Your task to perform on an android device: open app "Indeed Job Search" Image 0: 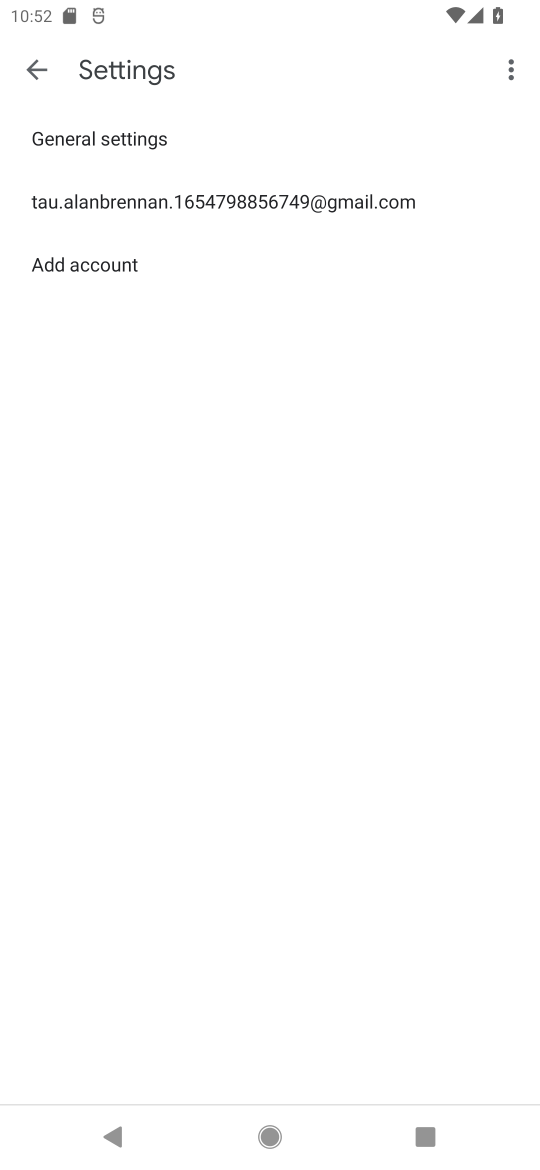
Step 0: press back button
Your task to perform on an android device: open app "Indeed Job Search" Image 1: 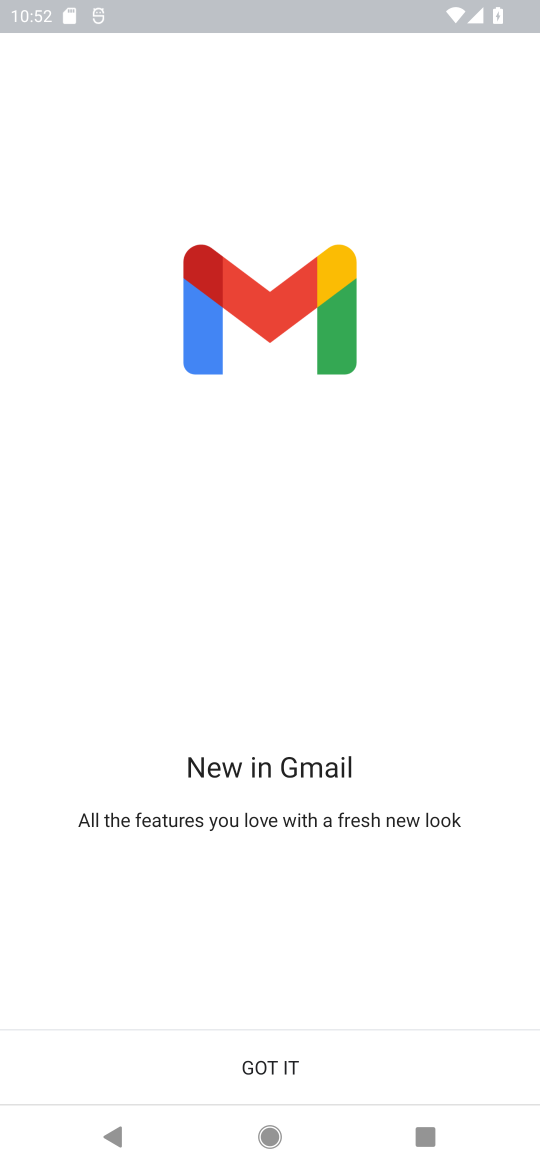
Step 1: press home button
Your task to perform on an android device: open app "Indeed Job Search" Image 2: 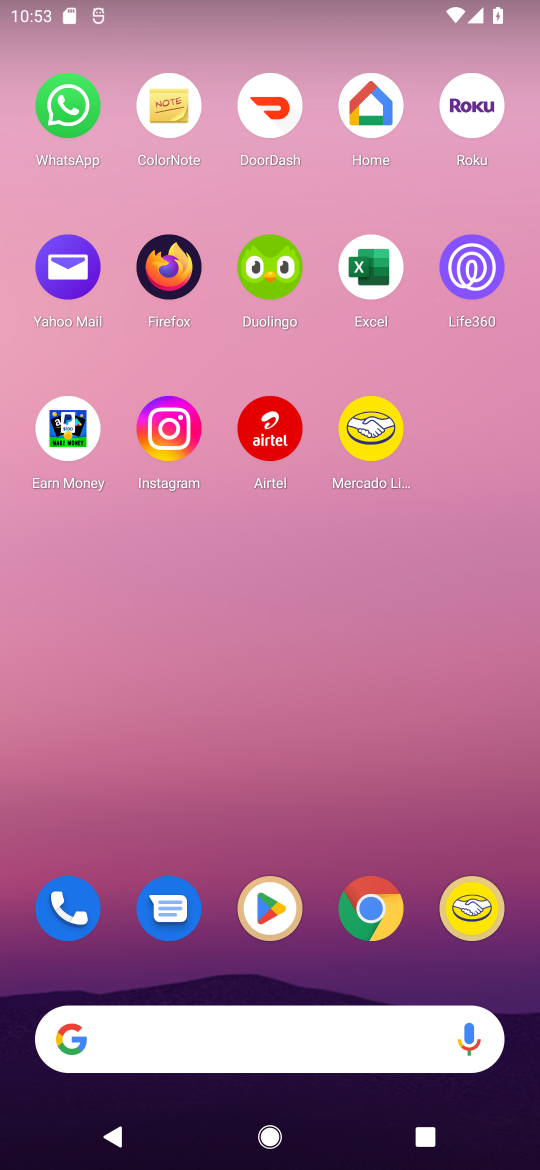
Step 2: click (252, 897)
Your task to perform on an android device: open app "Indeed Job Search" Image 3: 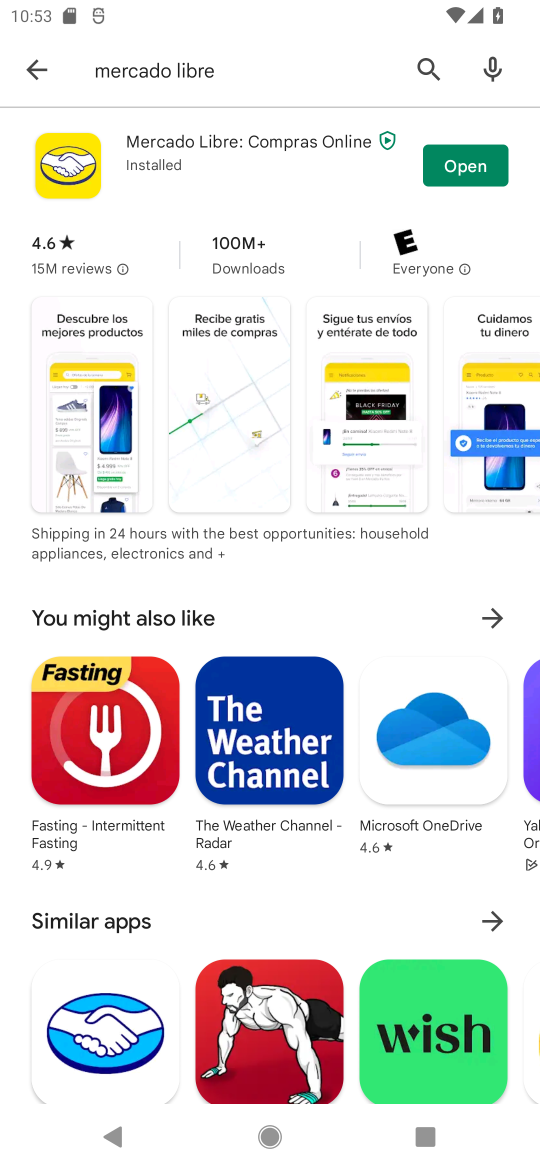
Step 3: click (30, 74)
Your task to perform on an android device: open app "Indeed Job Search" Image 4: 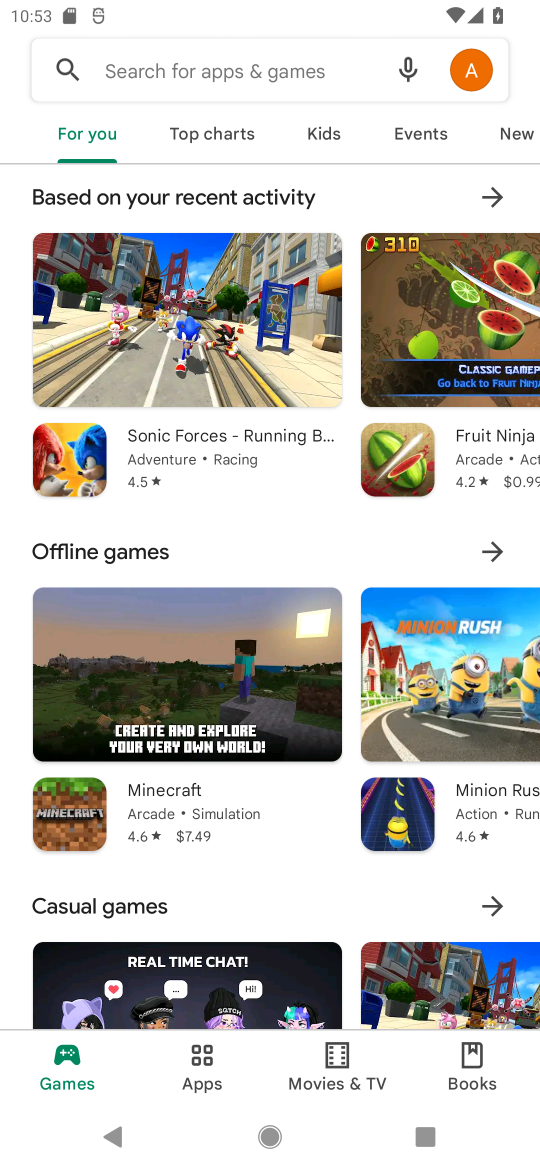
Step 4: click (319, 64)
Your task to perform on an android device: open app "Indeed Job Search" Image 5: 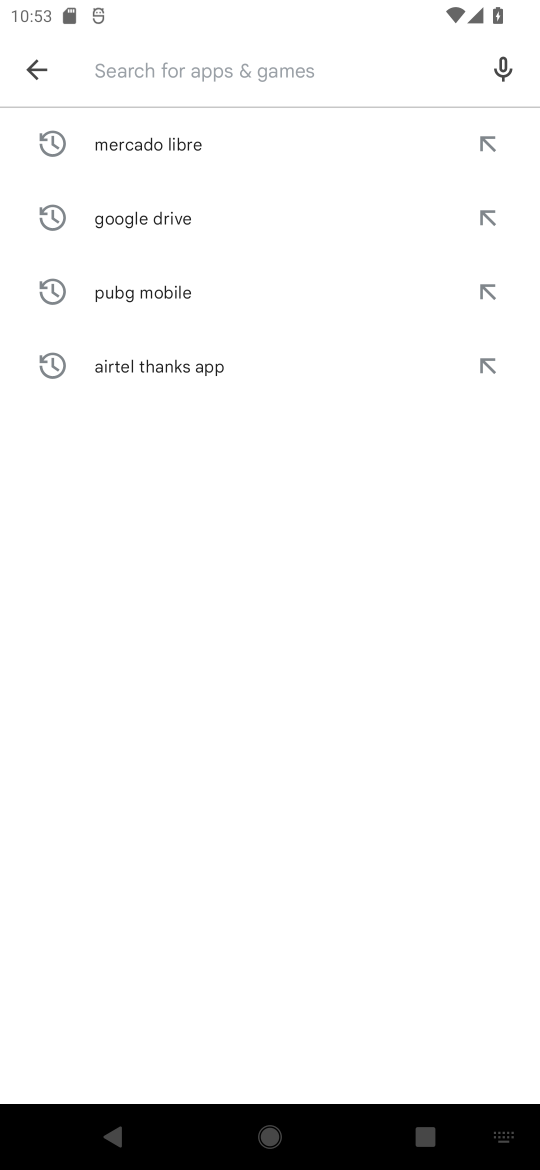
Step 5: type "Indeed Job Searc"
Your task to perform on an android device: open app "Indeed Job Search" Image 6: 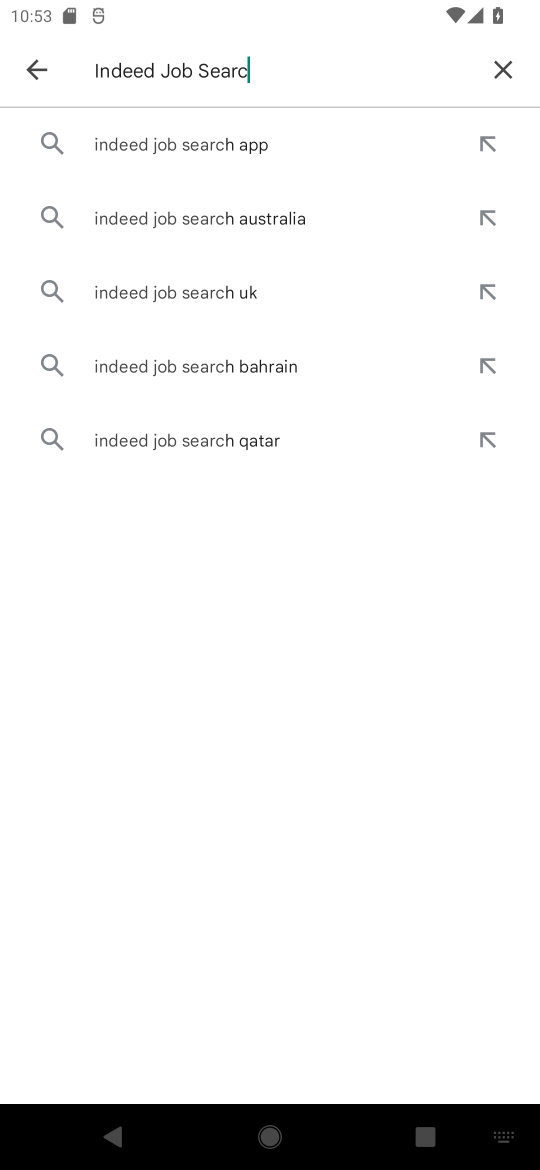
Step 6: click (167, 143)
Your task to perform on an android device: open app "Indeed Job Search" Image 7: 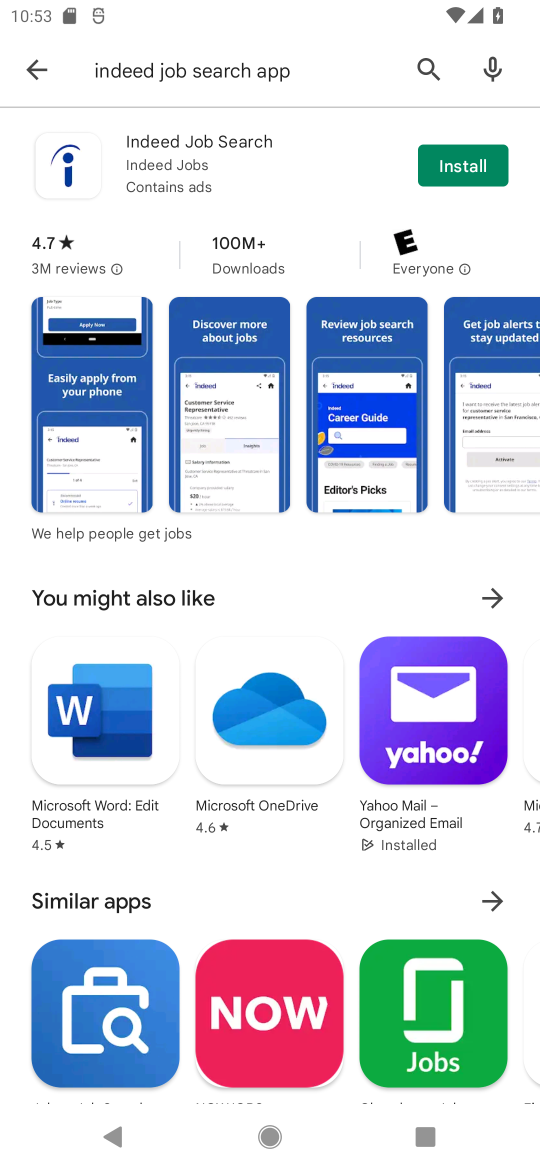
Step 7: task complete